Your task to perform on an android device: turn off smart reply in the gmail app Image 0: 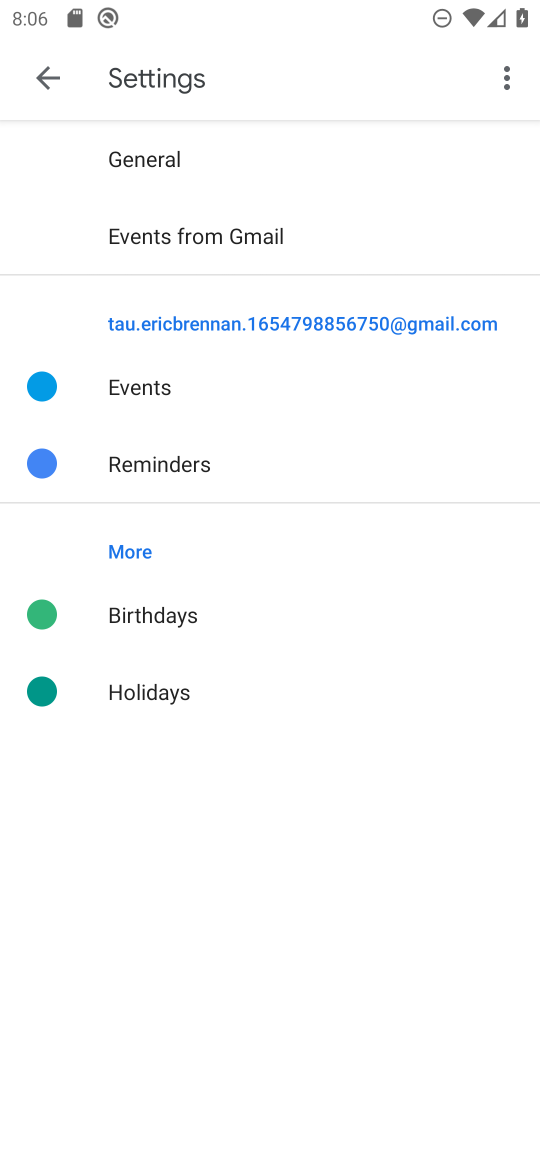
Step 0: press home button
Your task to perform on an android device: turn off smart reply in the gmail app Image 1: 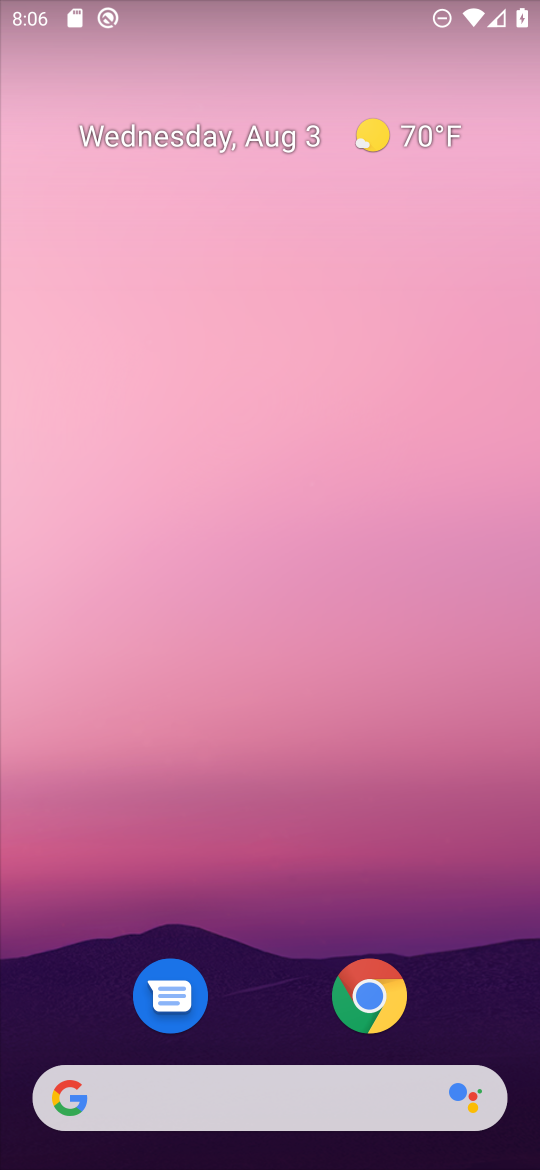
Step 1: drag from (263, 962) to (263, 2)
Your task to perform on an android device: turn off smart reply in the gmail app Image 2: 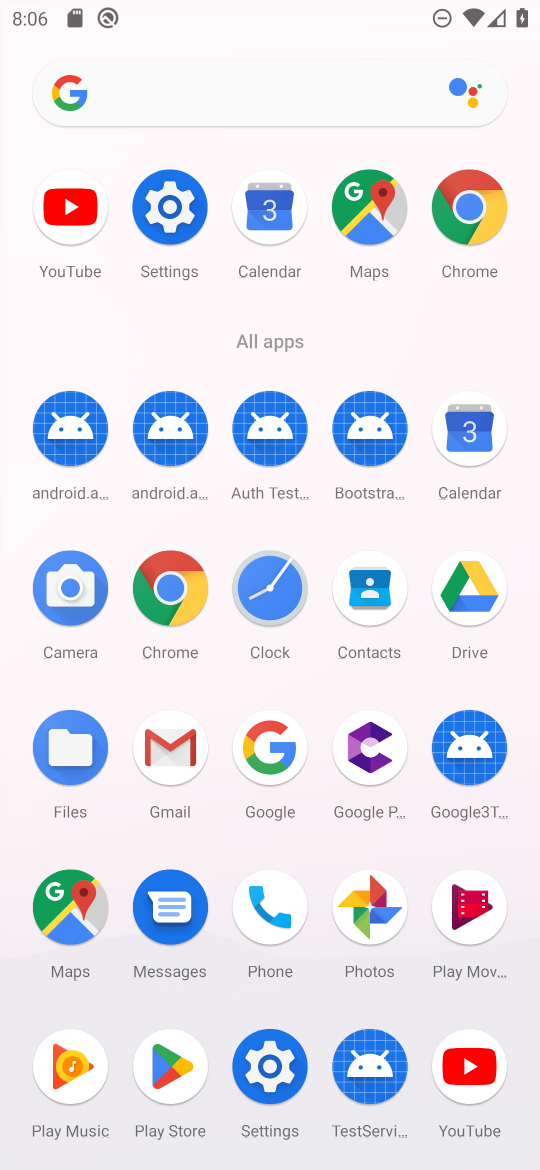
Step 2: click (180, 763)
Your task to perform on an android device: turn off smart reply in the gmail app Image 3: 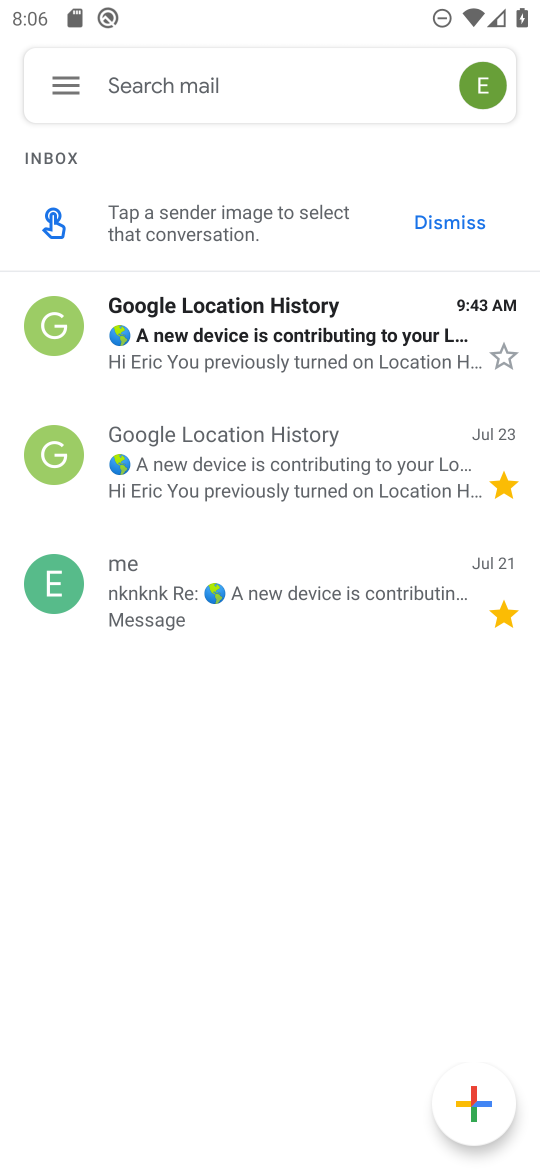
Step 3: click (57, 75)
Your task to perform on an android device: turn off smart reply in the gmail app Image 4: 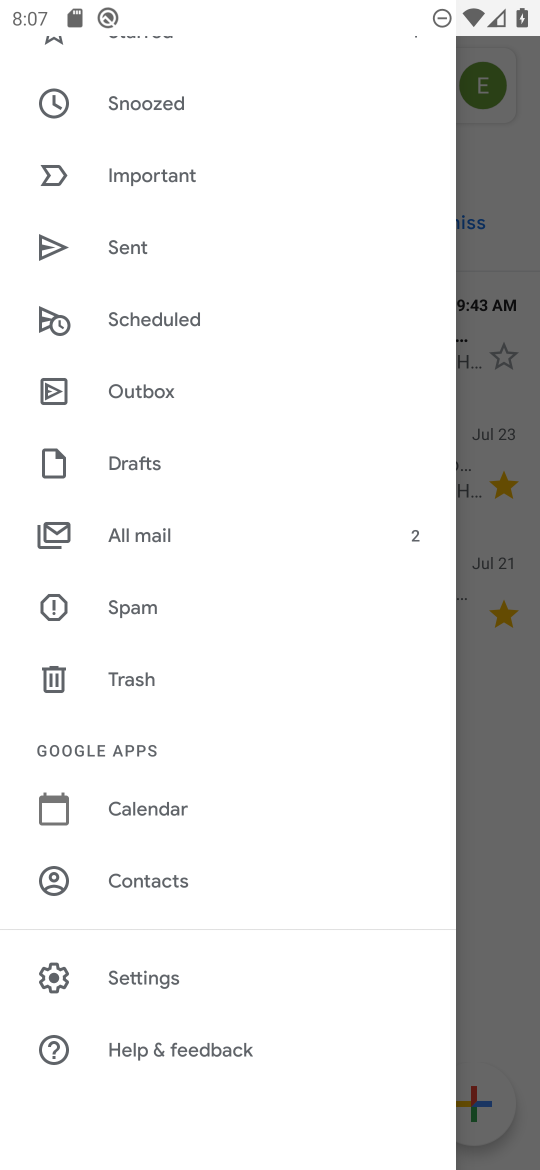
Step 4: click (174, 981)
Your task to perform on an android device: turn off smart reply in the gmail app Image 5: 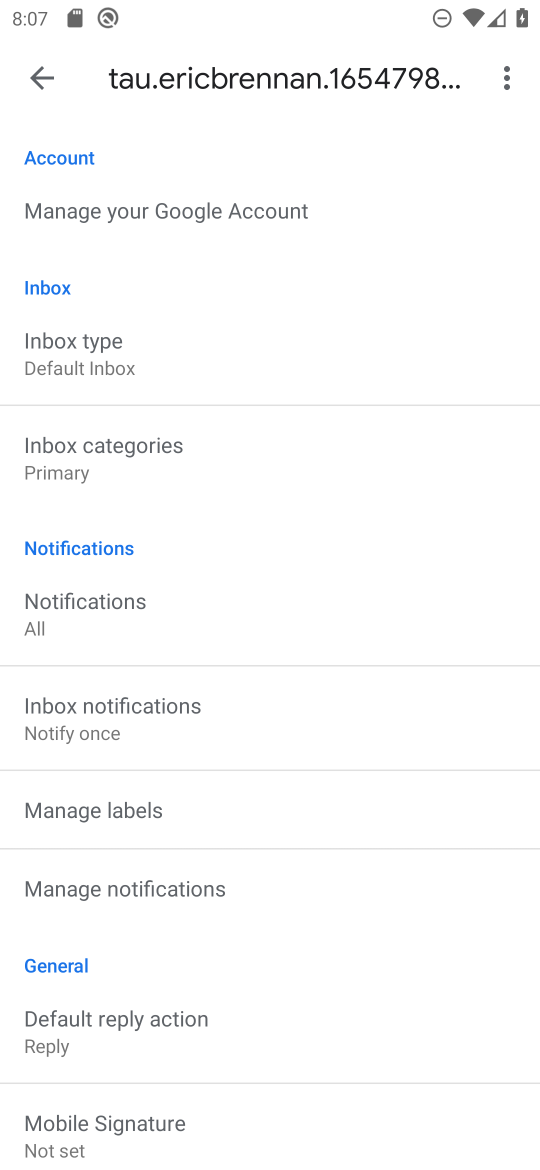
Step 5: drag from (333, 888) to (277, 211)
Your task to perform on an android device: turn off smart reply in the gmail app Image 6: 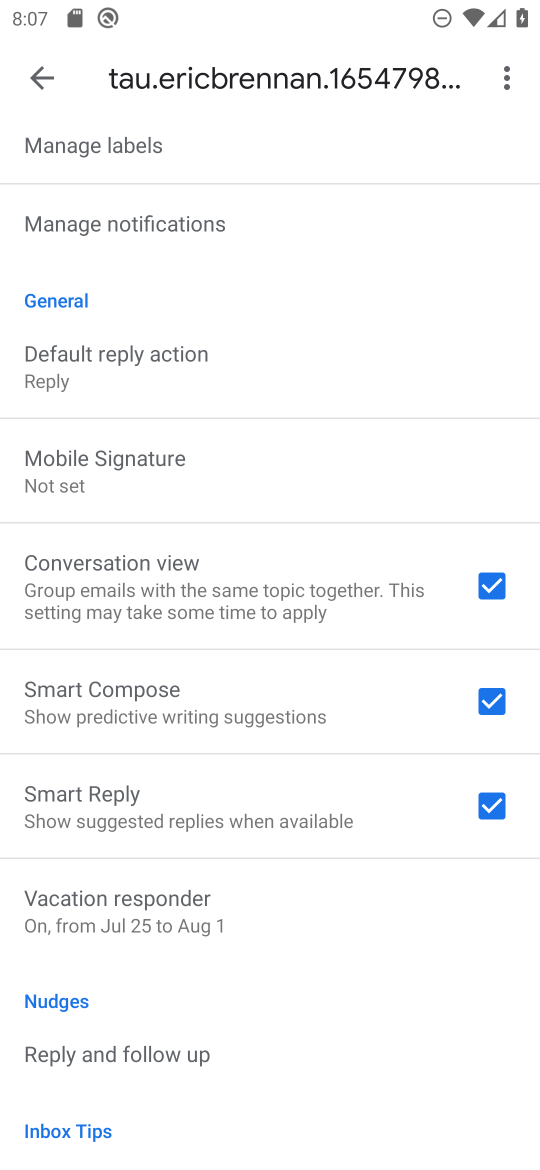
Step 6: click (495, 804)
Your task to perform on an android device: turn off smart reply in the gmail app Image 7: 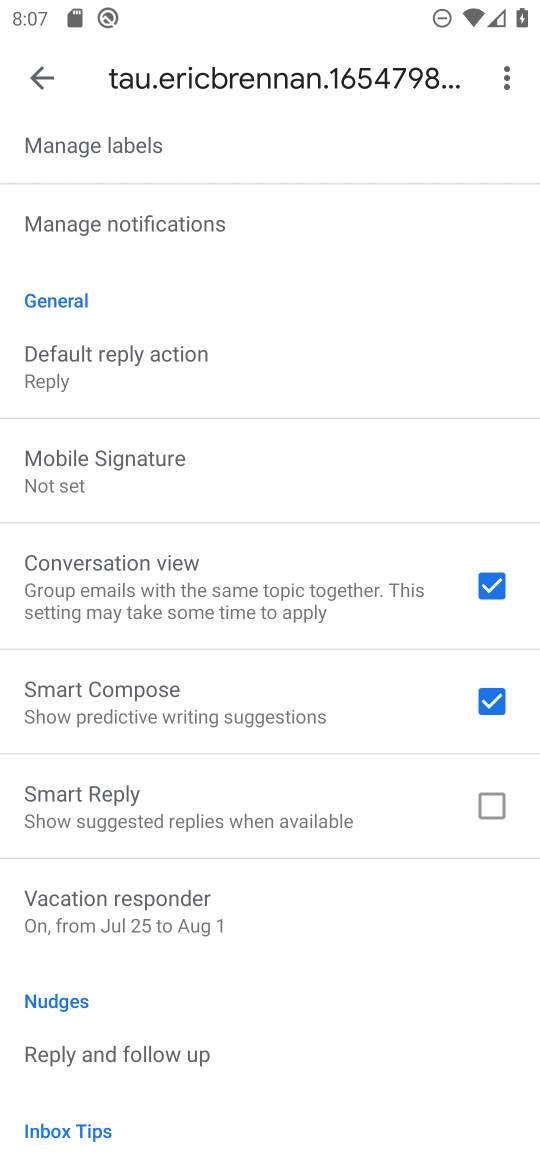
Step 7: task complete